Your task to perform on an android device: check storage Image 0: 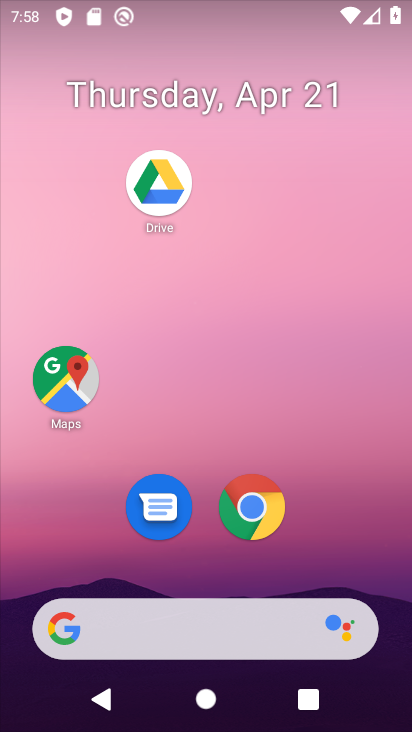
Step 0: drag from (369, 556) to (372, 112)
Your task to perform on an android device: check storage Image 1: 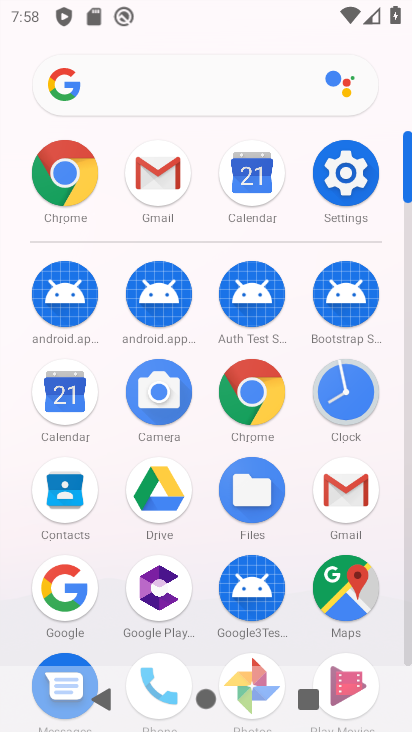
Step 1: click (357, 192)
Your task to perform on an android device: check storage Image 2: 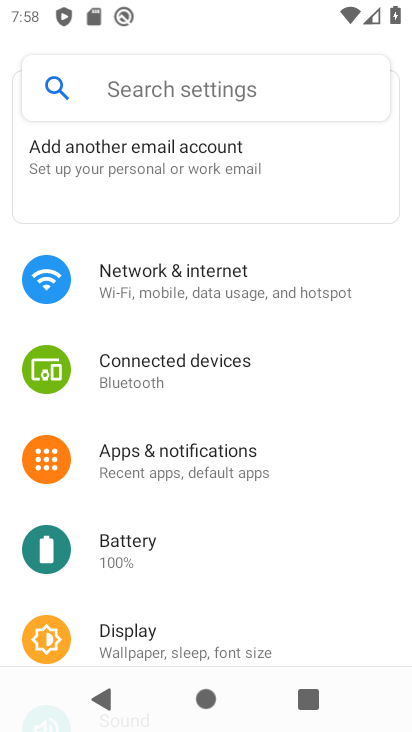
Step 2: drag from (353, 596) to (359, 500)
Your task to perform on an android device: check storage Image 3: 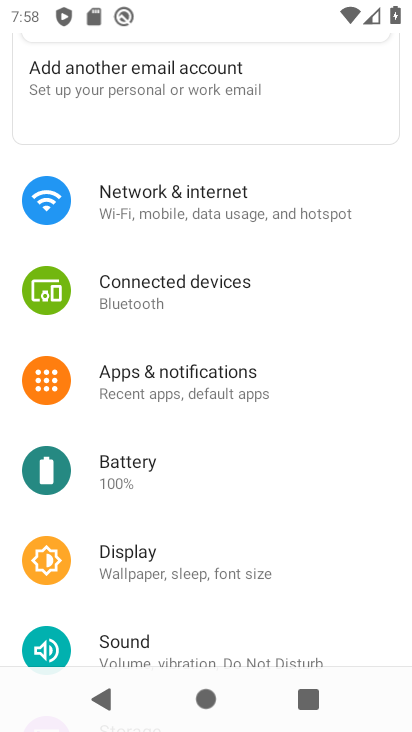
Step 3: drag from (352, 588) to (360, 474)
Your task to perform on an android device: check storage Image 4: 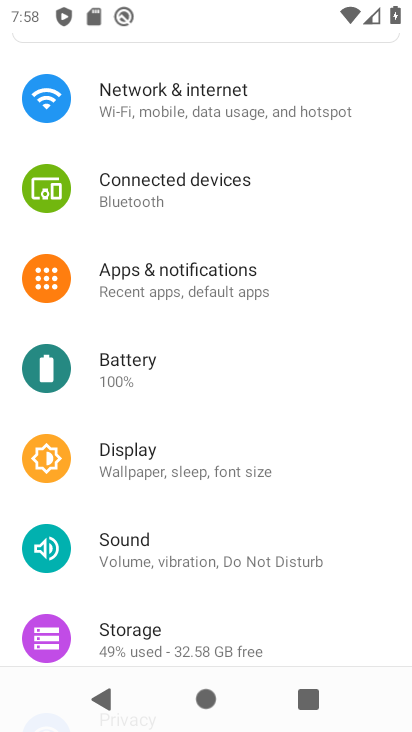
Step 4: drag from (352, 586) to (358, 472)
Your task to perform on an android device: check storage Image 5: 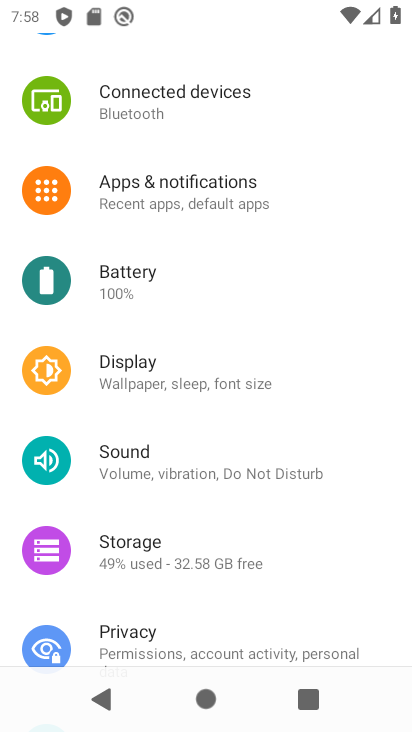
Step 5: drag from (346, 592) to (356, 456)
Your task to perform on an android device: check storage Image 6: 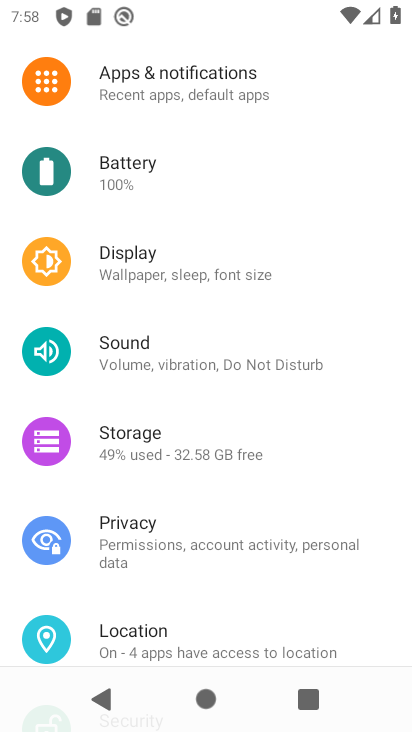
Step 6: drag from (371, 604) to (380, 480)
Your task to perform on an android device: check storage Image 7: 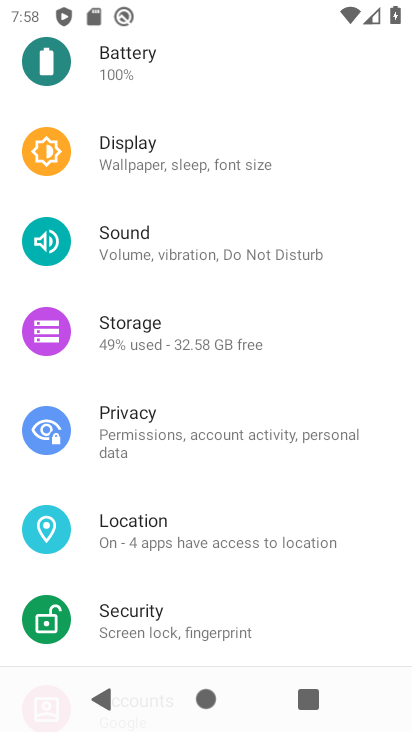
Step 7: drag from (372, 604) to (378, 493)
Your task to perform on an android device: check storage Image 8: 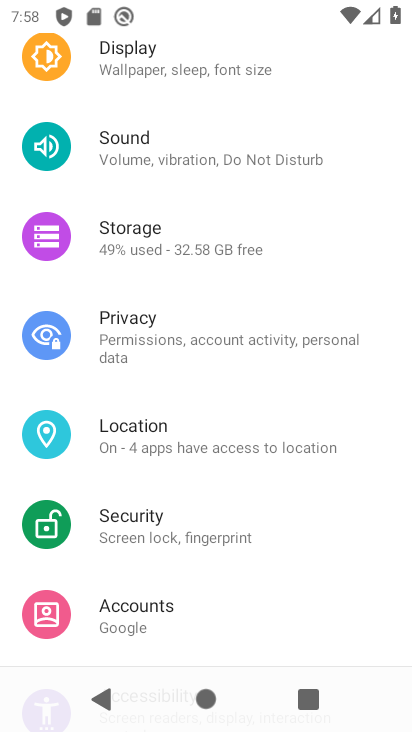
Step 8: drag from (360, 604) to (360, 444)
Your task to perform on an android device: check storage Image 9: 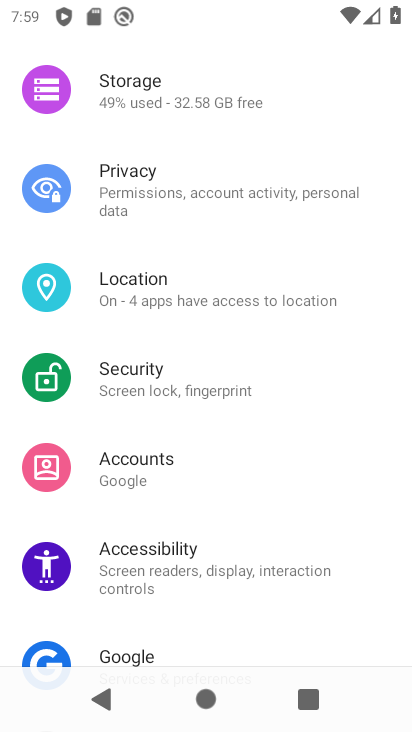
Step 9: drag from (361, 580) to (378, 329)
Your task to perform on an android device: check storage Image 10: 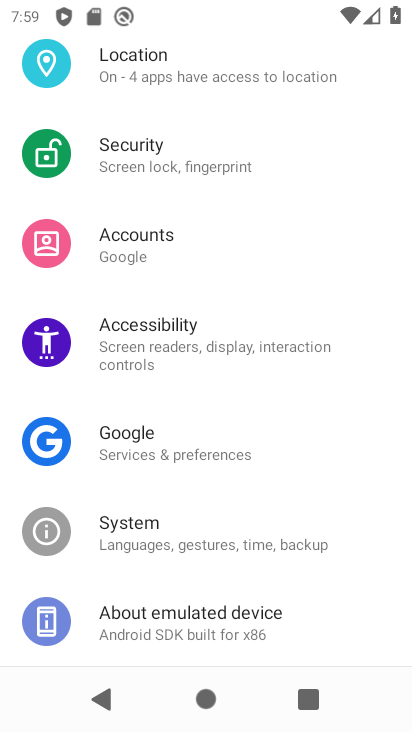
Step 10: drag from (356, 611) to (356, 415)
Your task to perform on an android device: check storage Image 11: 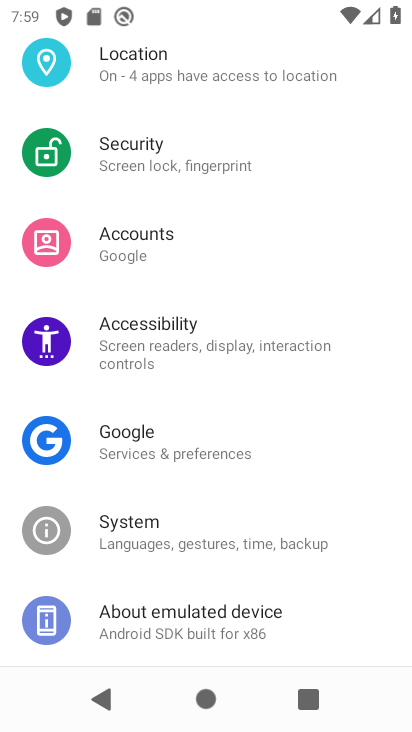
Step 11: drag from (364, 321) to (358, 454)
Your task to perform on an android device: check storage Image 12: 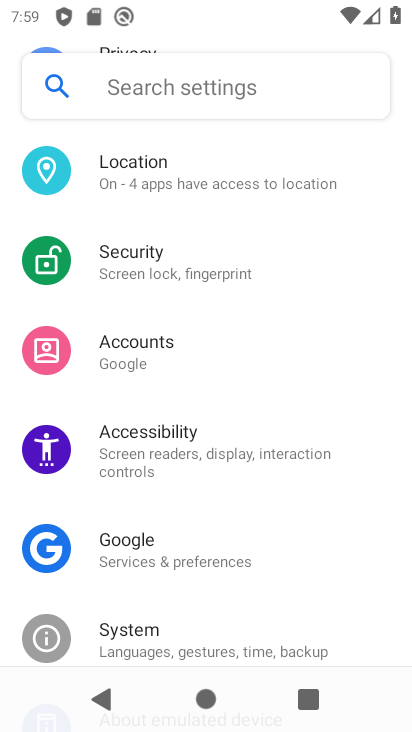
Step 12: drag from (363, 293) to (367, 446)
Your task to perform on an android device: check storage Image 13: 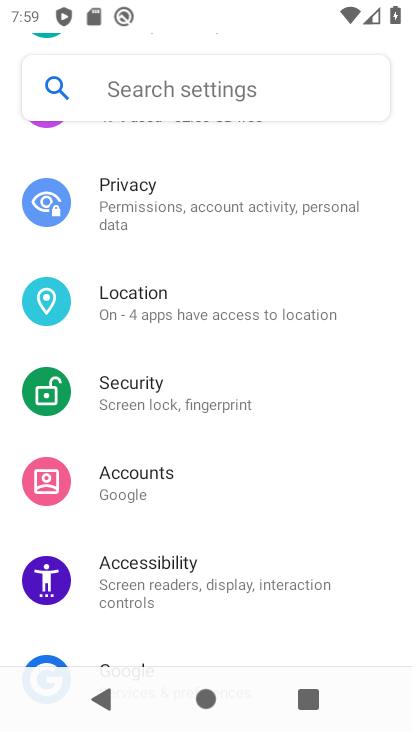
Step 13: drag from (364, 297) to (357, 430)
Your task to perform on an android device: check storage Image 14: 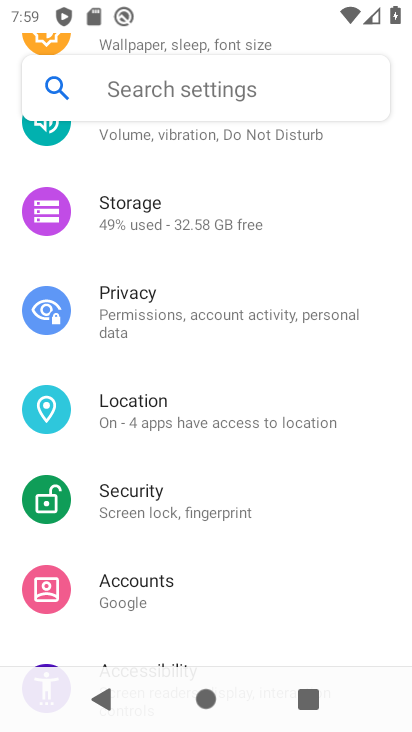
Step 14: drag from (361, 280) to (363, 390)
Your task to perform on an android device: check storage Image 15: 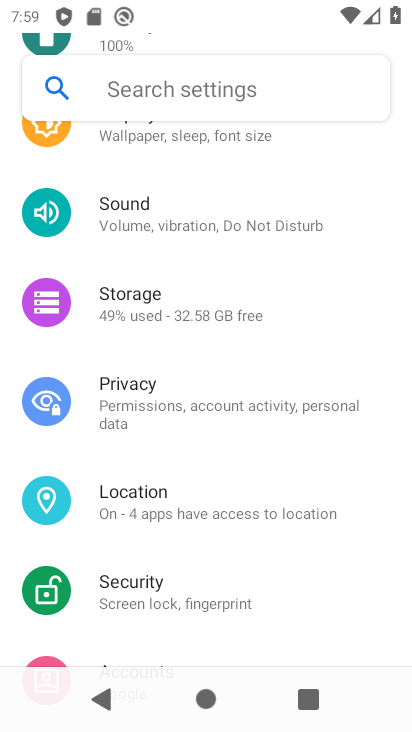
Step 15: click (190, 314)
Your task to perform on an android device: check storage Image 16: 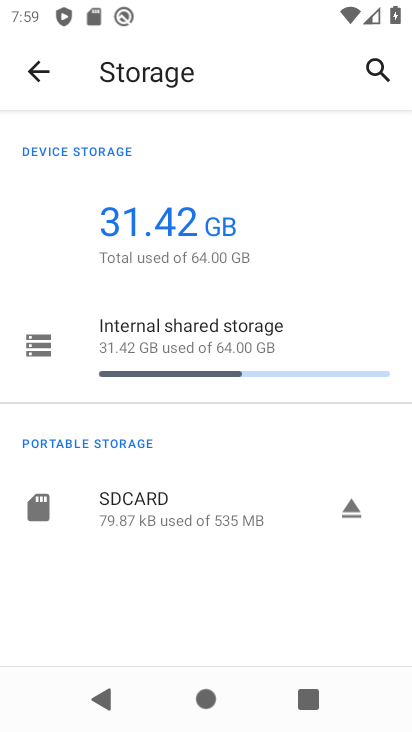
Step 16: task complete